Your task to perform on an android device: choose inbox layout in the gmail app Image 0: 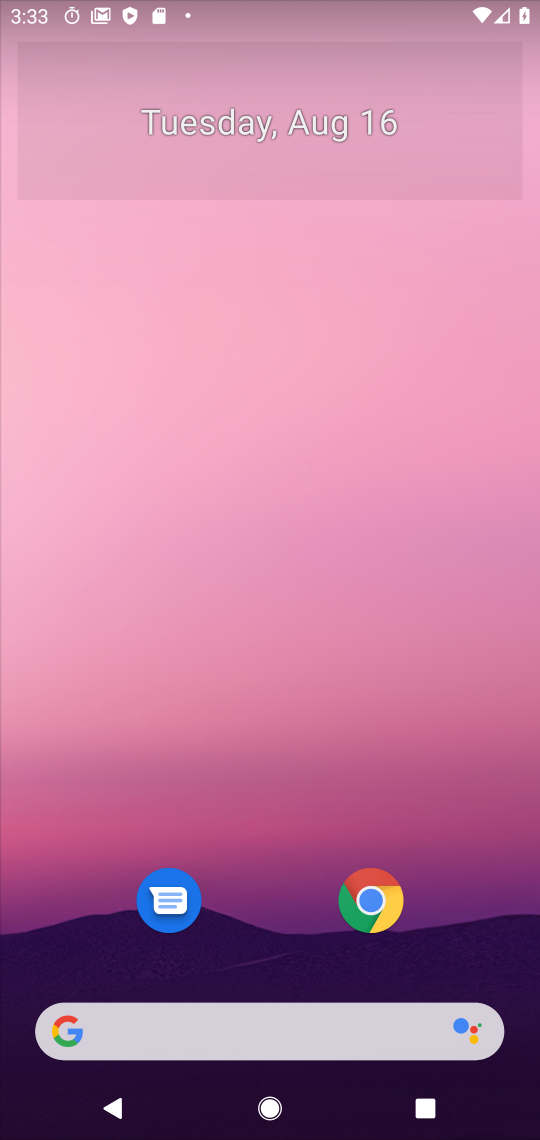
Step 0: drag from (251, 971) to (226, 137)
Your task to perform on an android device: choose inbox layout in the gmail app Image 1: 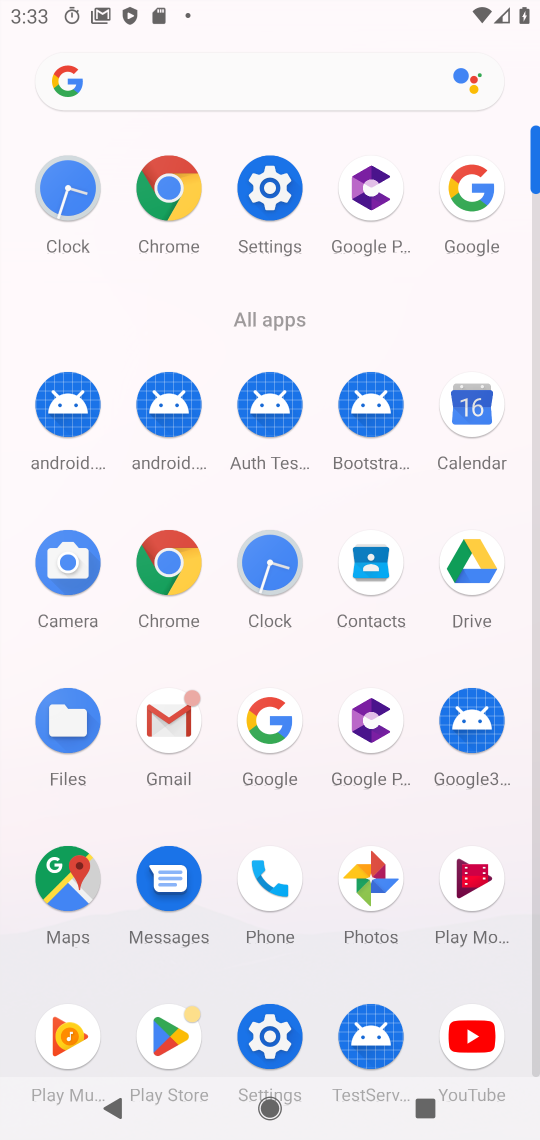
Step 1: click (175, 717)
Your task to perform on an android device: choose inbox layout in the gmail app Image 2: 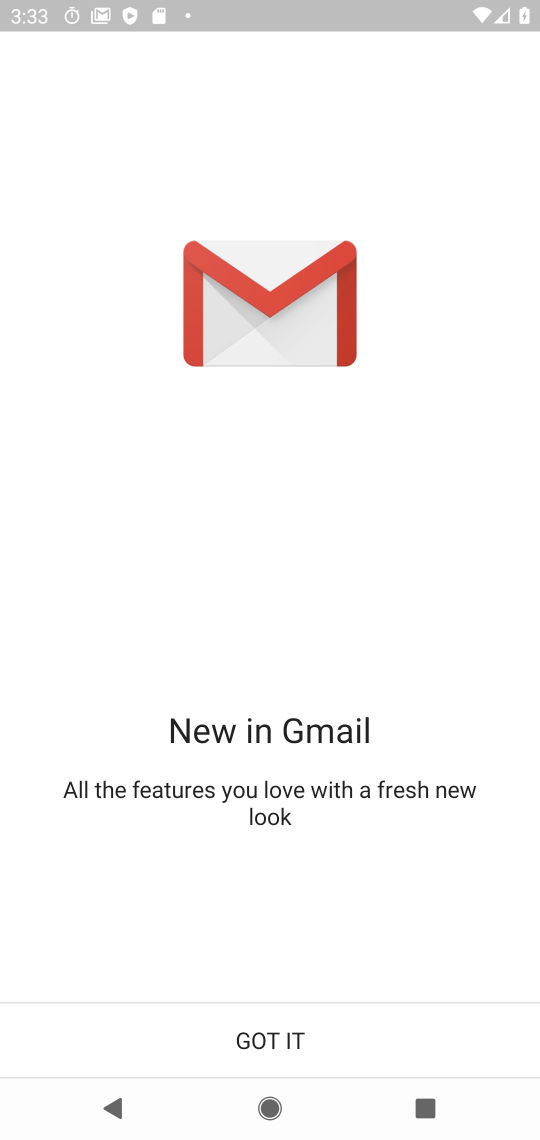
Step 2: click (262, 1031)
Your task to perform on an android device: choose inbox layout in the gmail app Image 3: 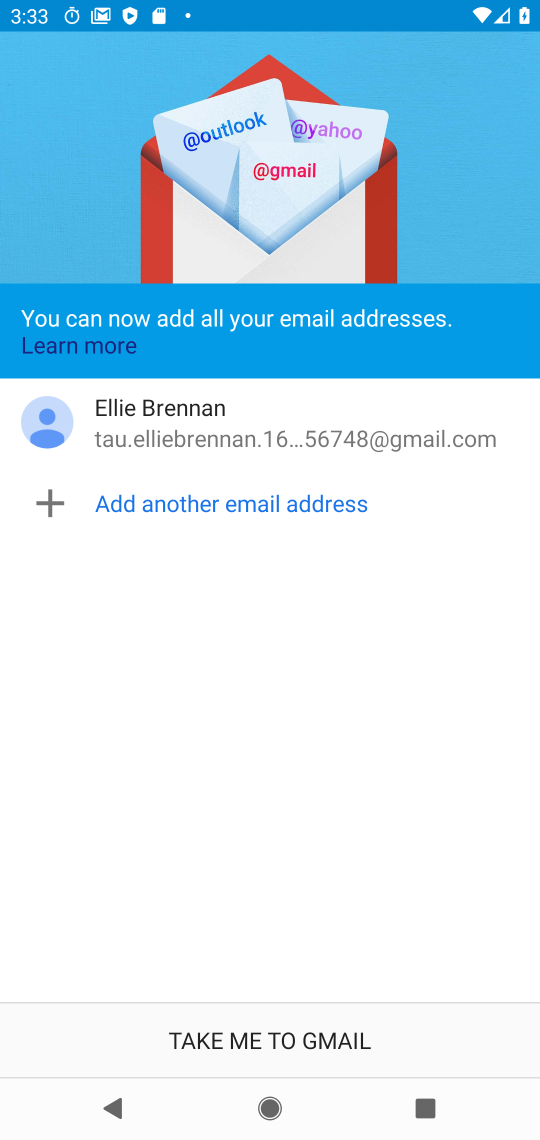
Step 3: click (262, 1031)
Your task to perform on an android device: choose inbox layout in the gmail app Image 4: 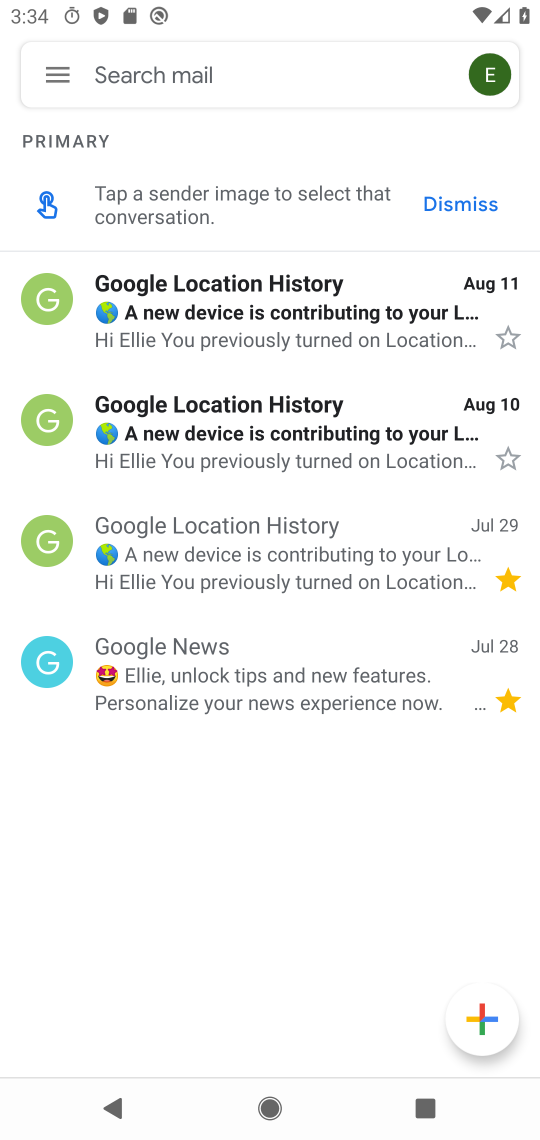
Step 4: click (66, 80)
Your task to perform on an android device: choose inbox layout in the gmail app Image 5: 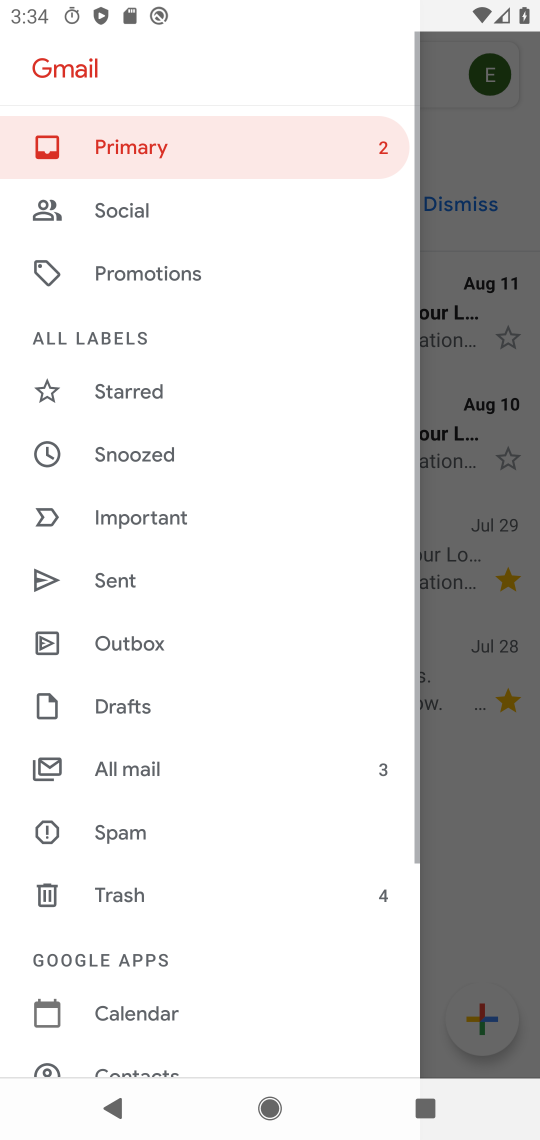
Step 5: drag from (122, 1027) to (122, 345)
Your task to perform on an android device: choose inbox layout in the gmail app Image 6: 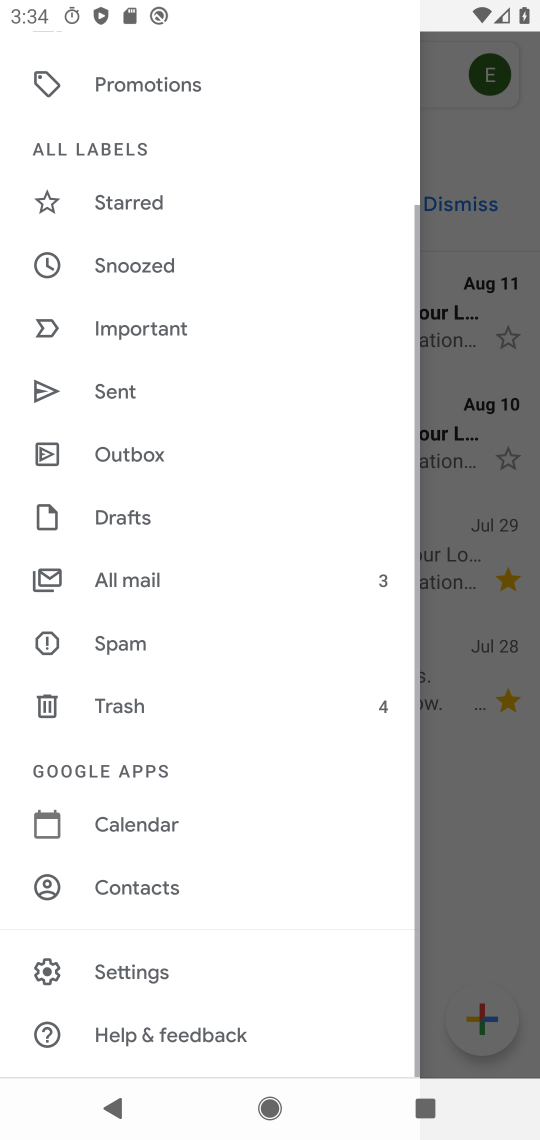
Step 6: click (128, 974)
Your task to perform on an android device: choose inbox layout in the gmail app Image 7: 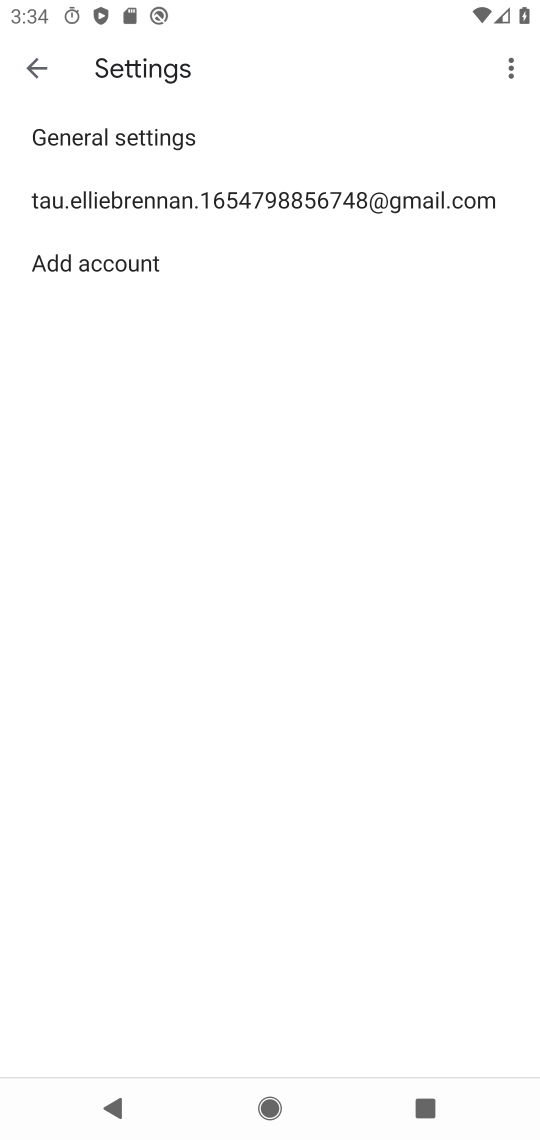
Step 7: click (249, 188)
Your task to perform on an android device: choose inbox layout in the gmail app Image 8: 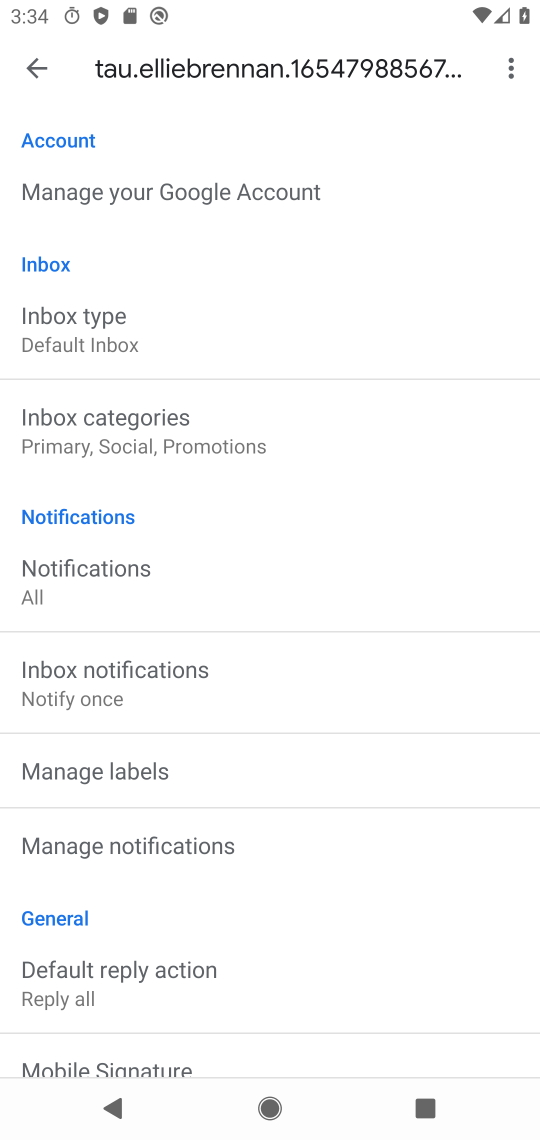
Step 8: click (57, 332)
Your task to perform on an android device: choose inbox layout in the gmail app Image 9: 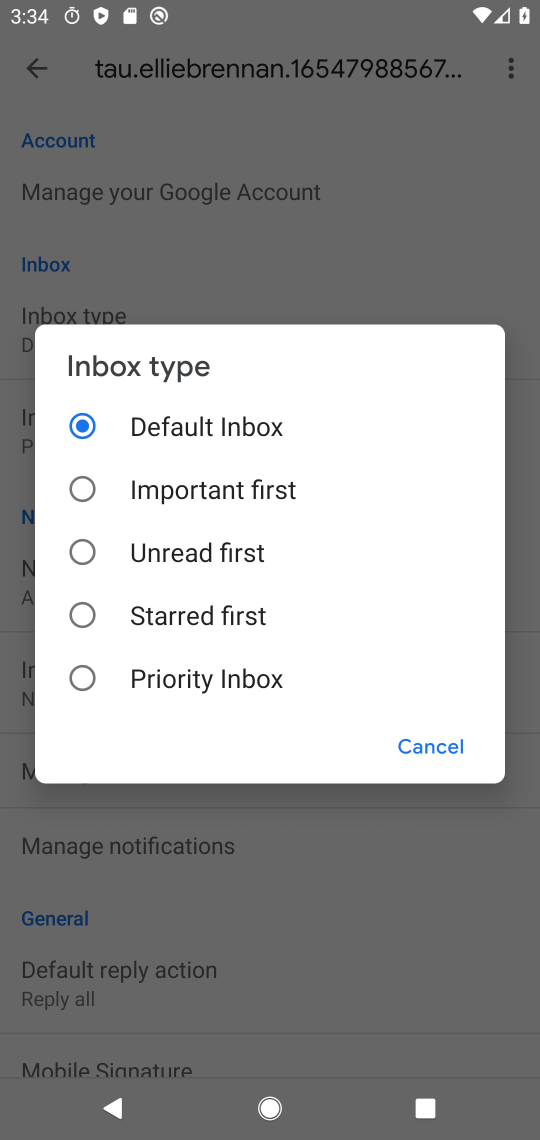
Step 9: click (83, 682)
Your task to perform on an android device: choose inbox layout in the gmail app Image 10: 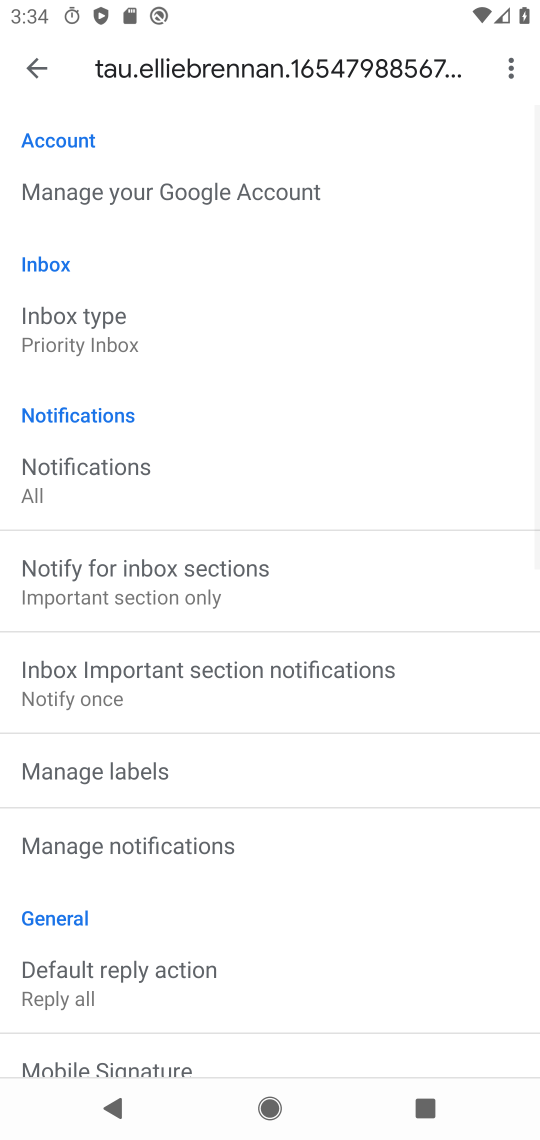
Step 10: task complete